Your task to perform on an android device: turn vacation reply on in the gmail app Image 0: 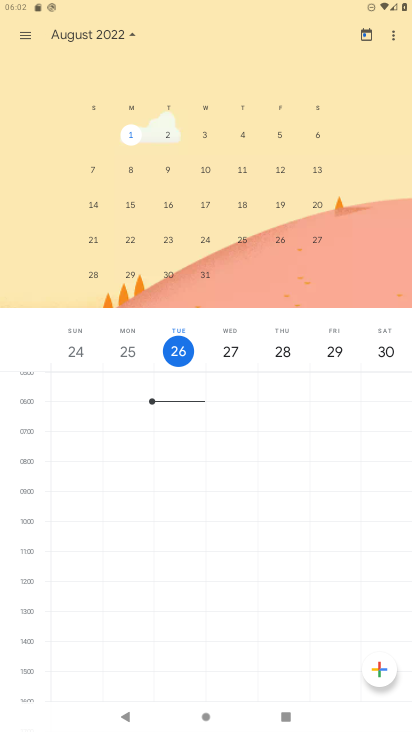
Step 0: press home button
Your task to perform on an android device: turn vacation reply on in the gmail app Image 1: 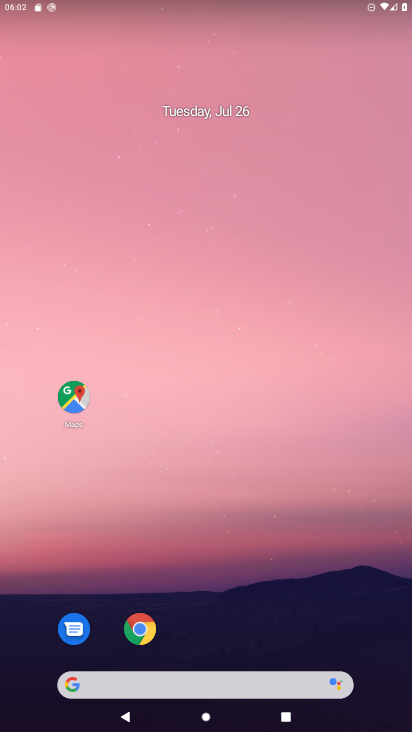
Step 1: drag from (193, 568) to (171, 138)
Your task to perform on an android device: turn vacation reply on in the gmail app Image 2: 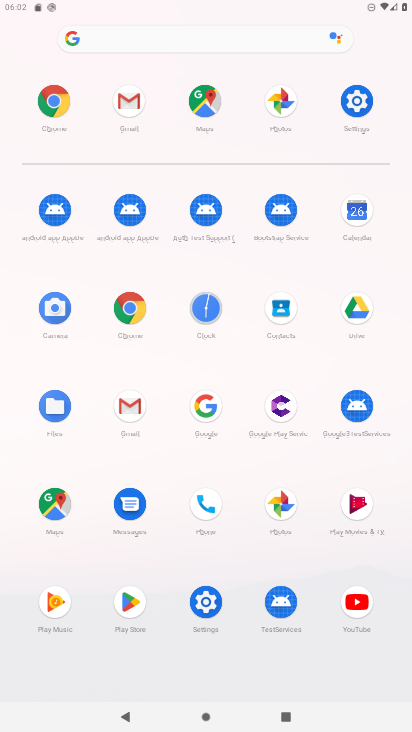
Step 2: click (123, 107)
Your task to perform on an android device: turn vacation reply on in the gmail app Image 3: 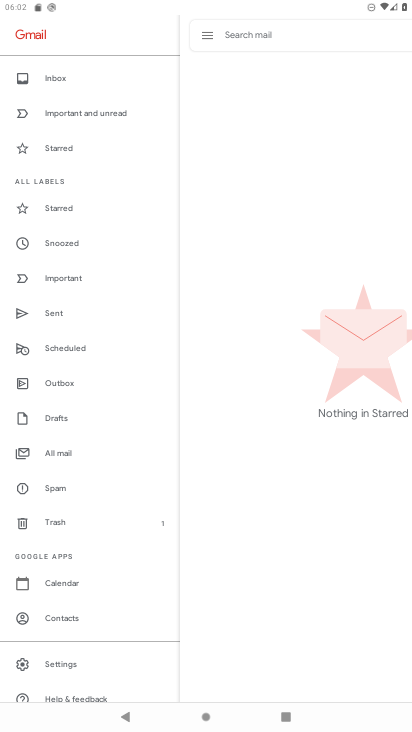
Step 3: click (57, 663)
Your task to perform on an android device: turn vacation reply on in the gmail app Image 4: 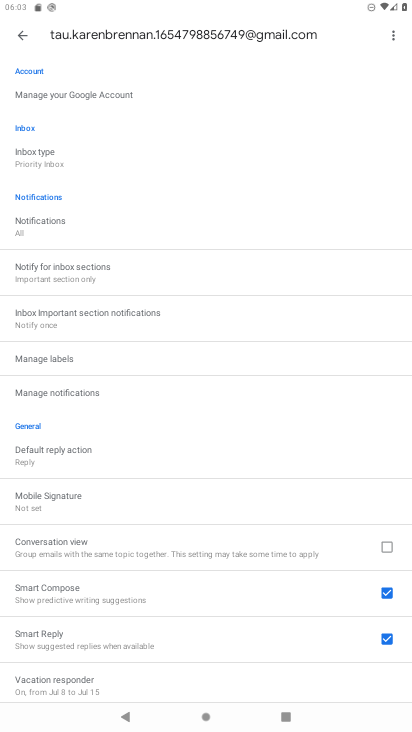
Step 4: drag from (136, 627) to (167, 446)
Your task to perform on an android device: turn vacation reply on in the gmail app Image 5: 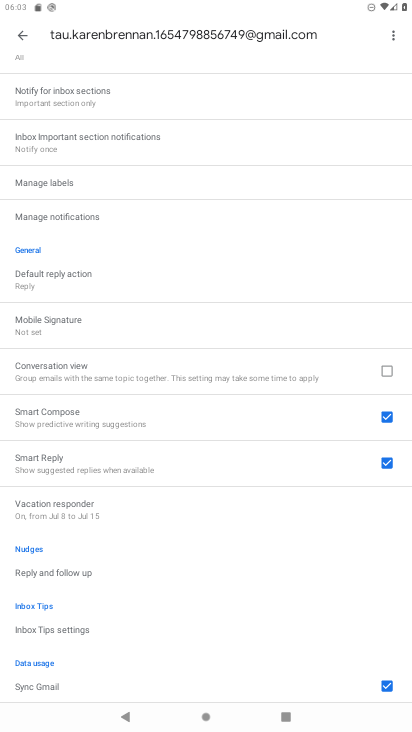
Step 5: click (77, 501)
Your task to perform on an android device: turn vacation reply on in the gmail app Image 6: 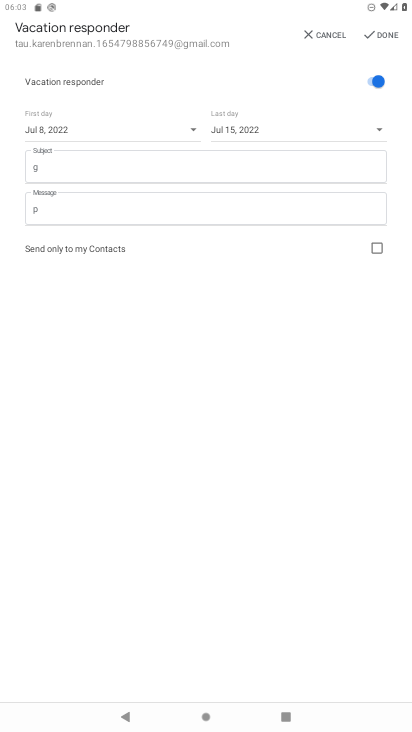
Step 6: click (383, 31)
Your task to perform on an android device: turn vacation reply on in the gmail app Image 7: 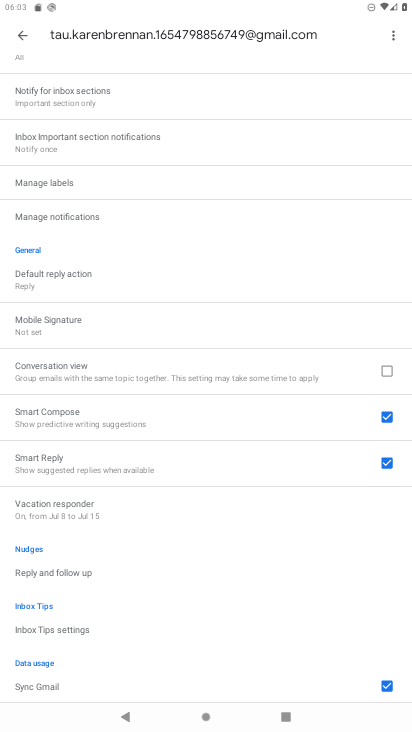
Step 7: task complete